Your task to perform on an android device: check google app version Image 0: 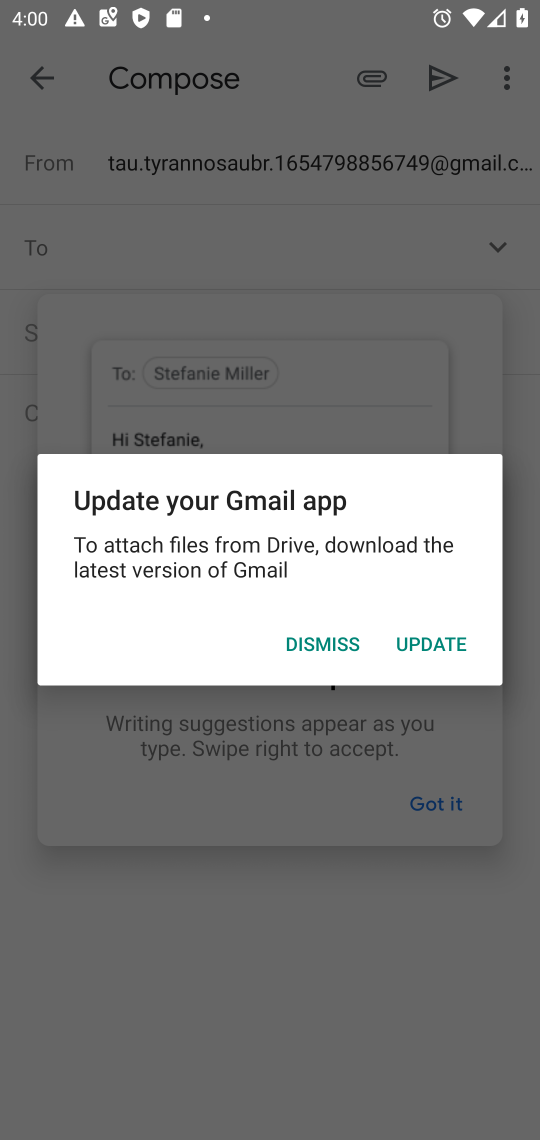
Step 0: press home button
Your task to perform on an android device: check google app version Image 1: 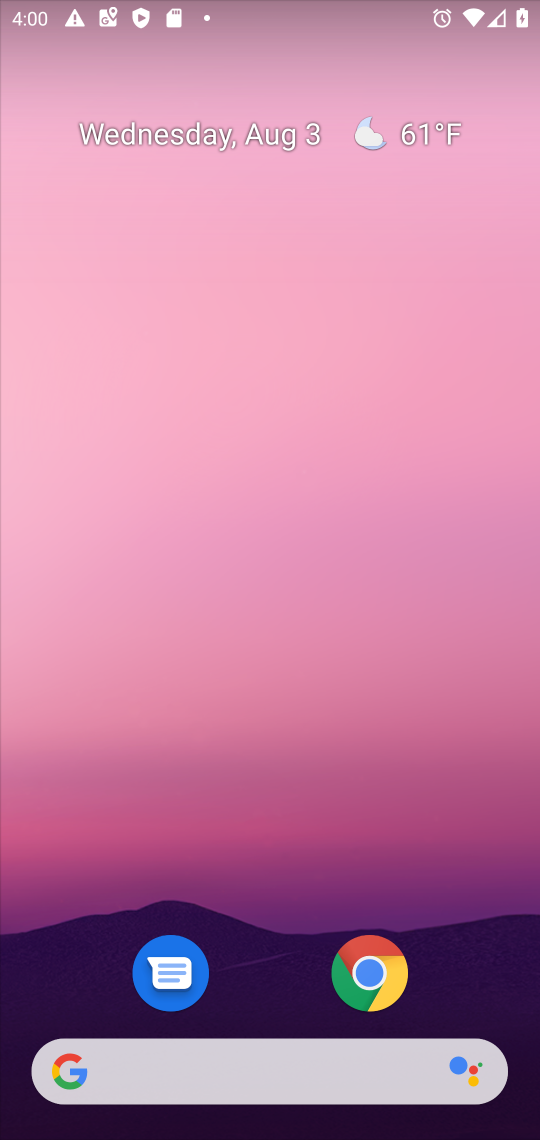
Step 1: click (241, 1076)
Your task to perform on an android device: check google app version Image 2: 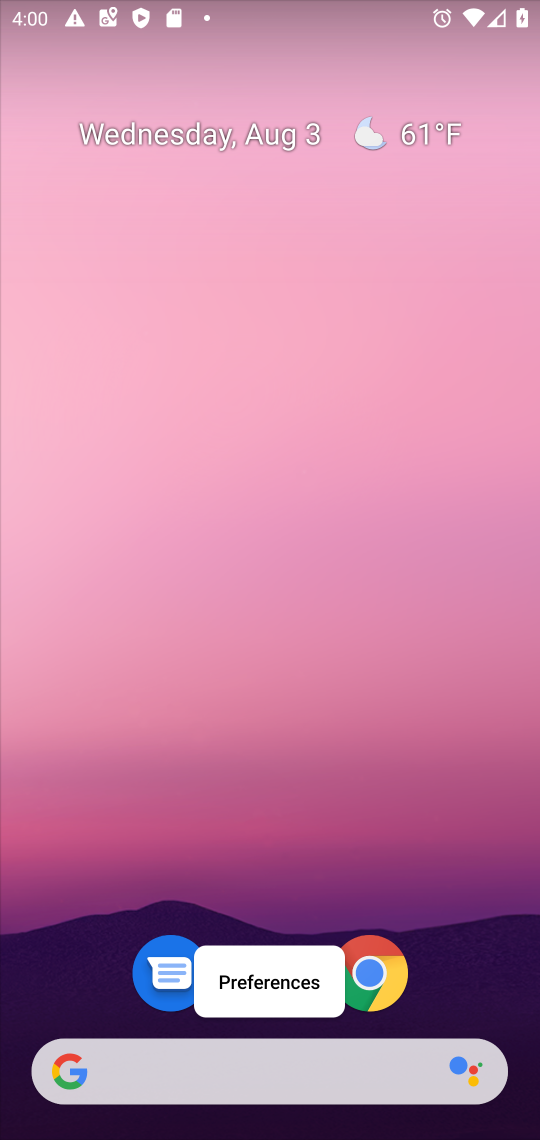
Step 2: click (241, 1076)
Your task to perform on an android device: check google app version Image 3: 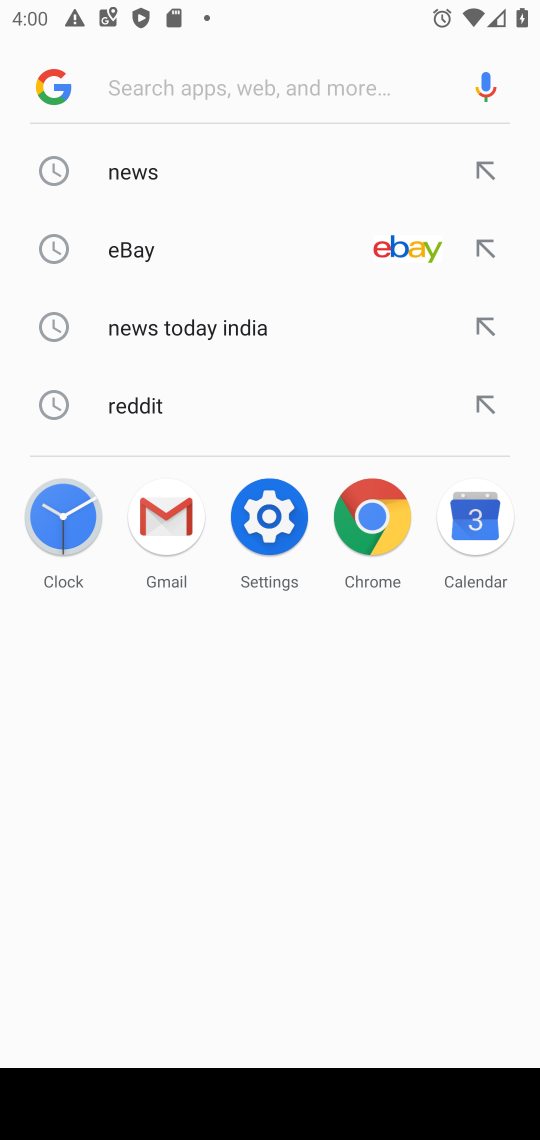
Step 3: click (51, 88)
Your task to perform on an android device: check google app version Image 4: 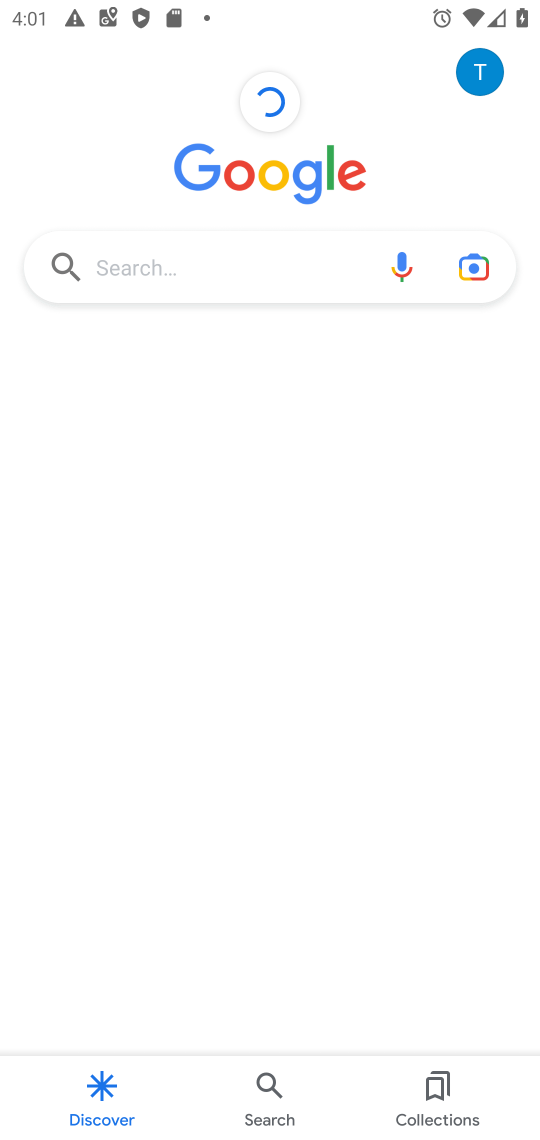
Step 4: click (486, 75)
Your task to perform on an android device: check google app version Image 5: 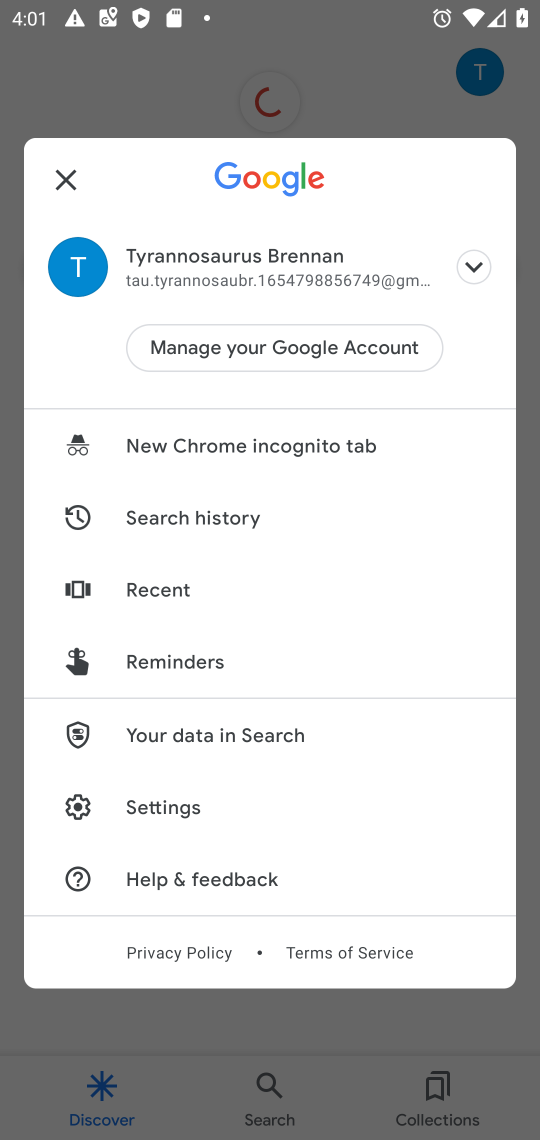
Step 5: click (174, 813)
Your task to perform on an android device: check google app version Image 6: 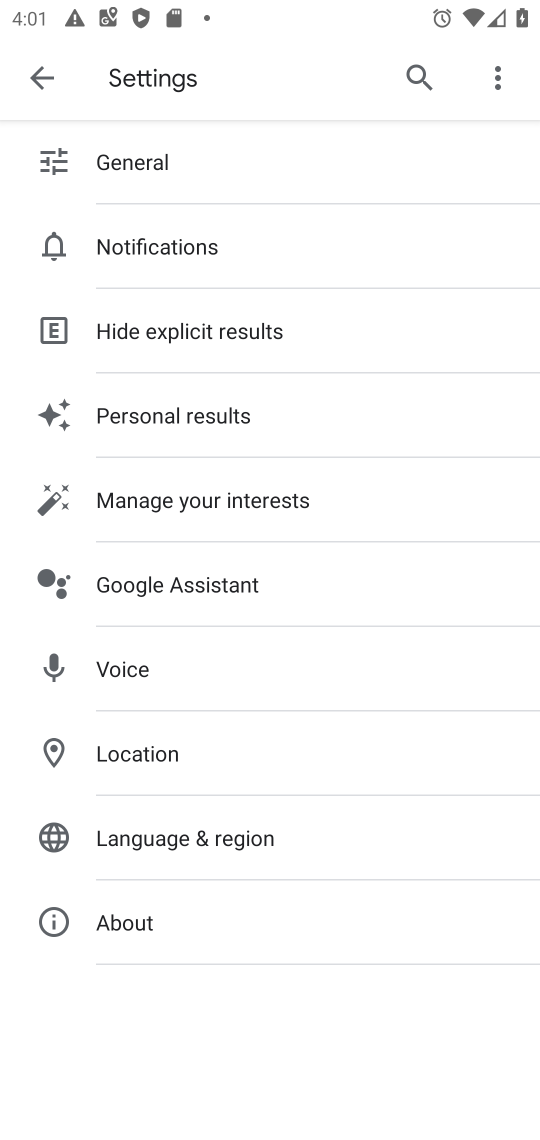
Step 6: click (135, 910)
Your task to perform on an android device: check google app version Image 7: 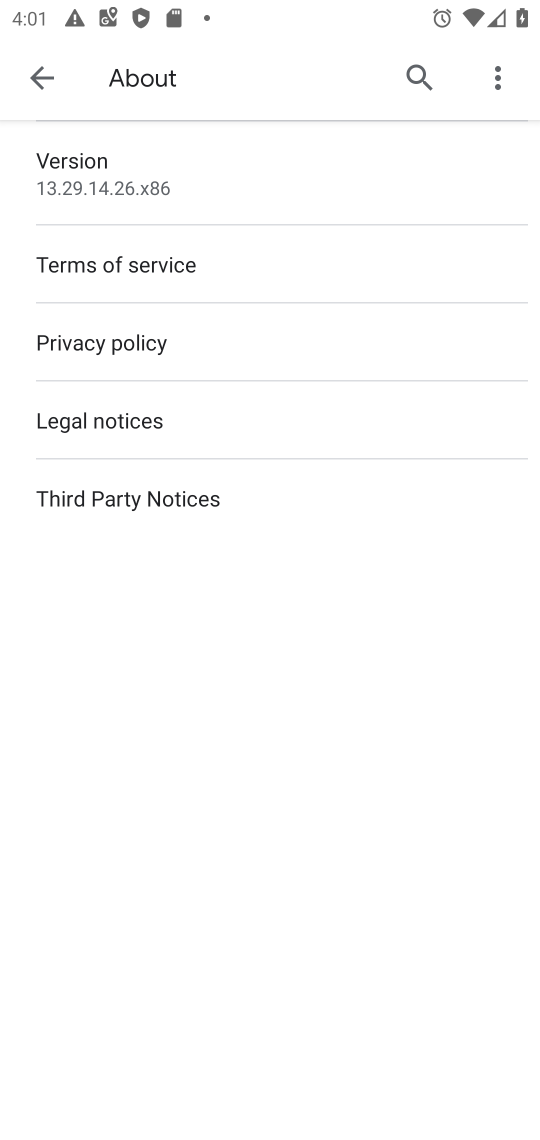
Step 7: task complete